Your task to perform on an android device: turn off sleep mode Image 0: 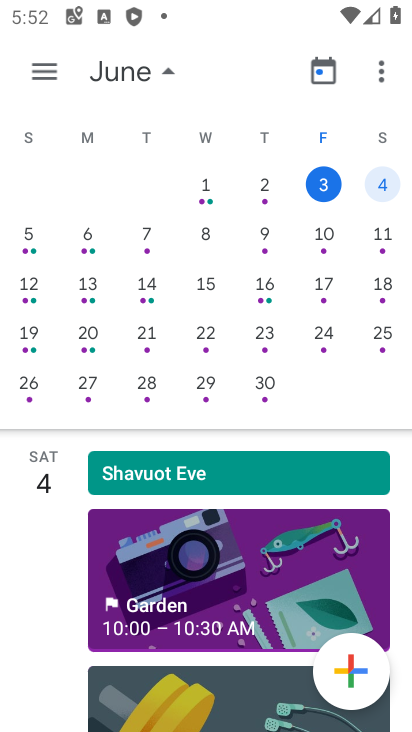
Step 0: press home button
Your task to perform on an android device: turn off sleep mode Image 1: 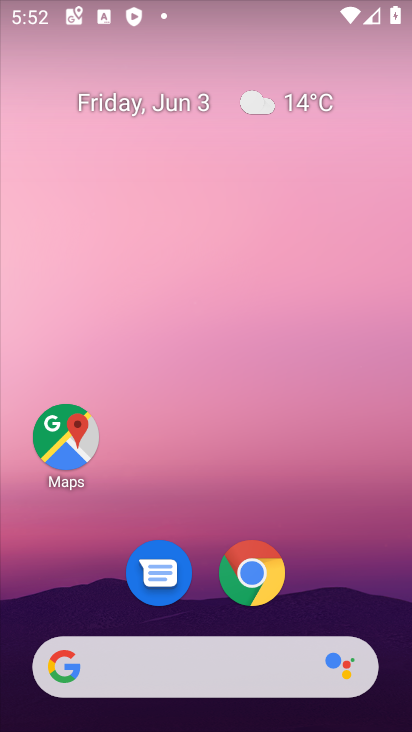
Step 1: drag from (265, 642) to (287, 11)
Your task to perform on an android device: turn off sleep mode Image 2: 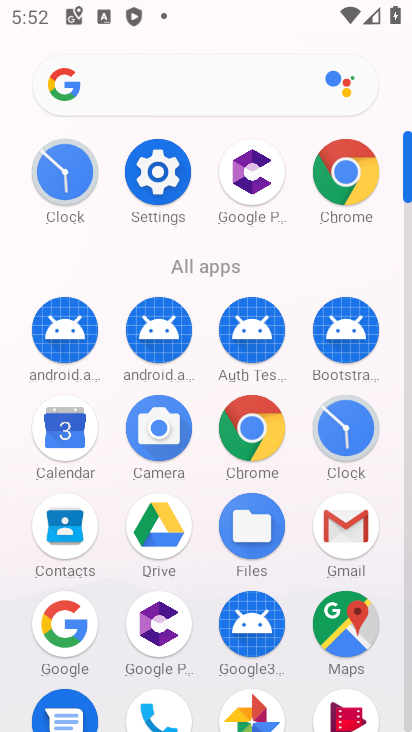
Step 2: click (157, 160)
Your task to perform on an android device: turn off sleep mode Image 3: 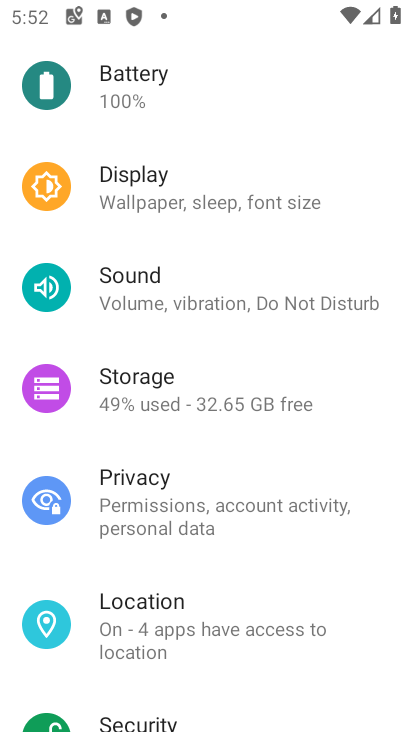
Step 3: drag from (184, 202) to (235, 724)
Your task to perform on an android device: turn off sleep mode Image 4: 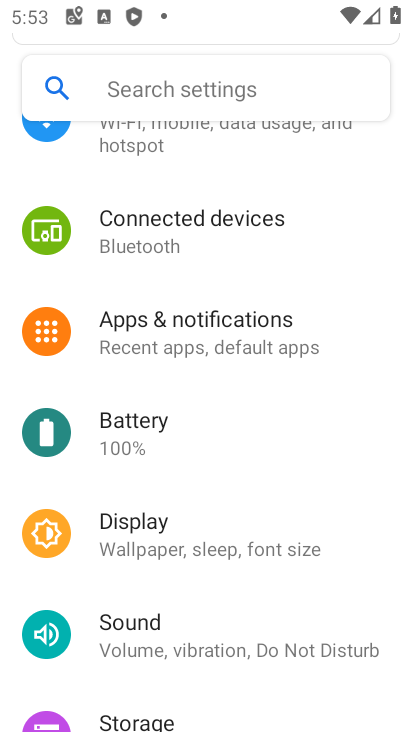
Step 4: drag from (262, 232) to (302, 725)
Your task to perform on an android device: turn off sleep mode Image 5: 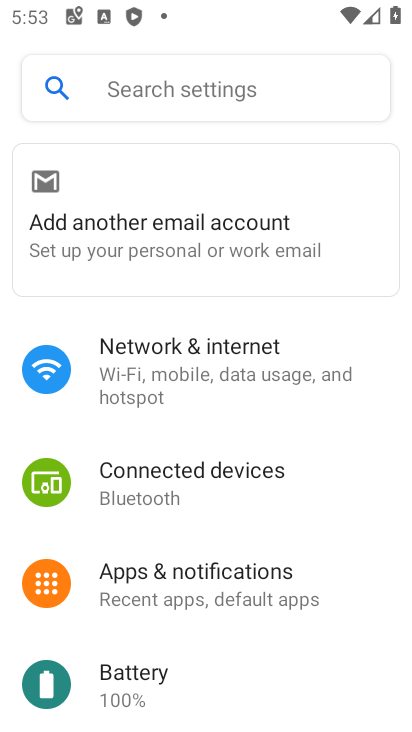
Step 5: drag from (278, 671) to (360, 60)
Your task to perform on an android device: turn off sleep mode Image 6: 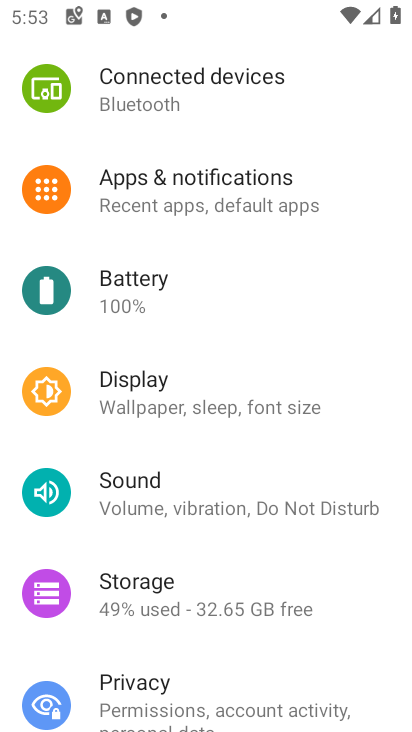
Step 6: click (240, 403)
Your task to perform on an android device: turn off sleep mode Image 7: 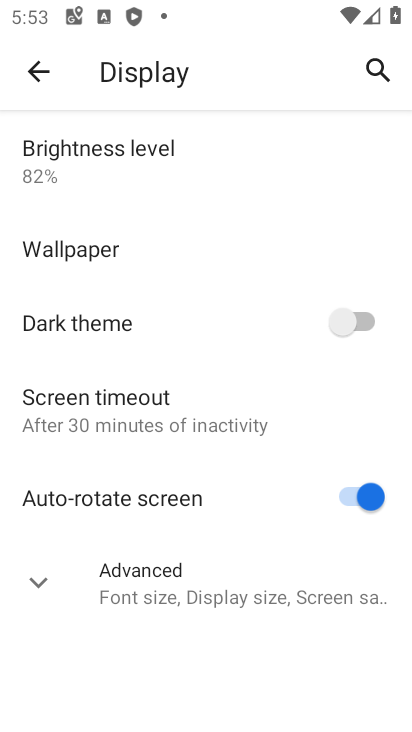
Step 7: task complete